Your task to perform on an android device: choose inbox layout in the gmail app Image 0: 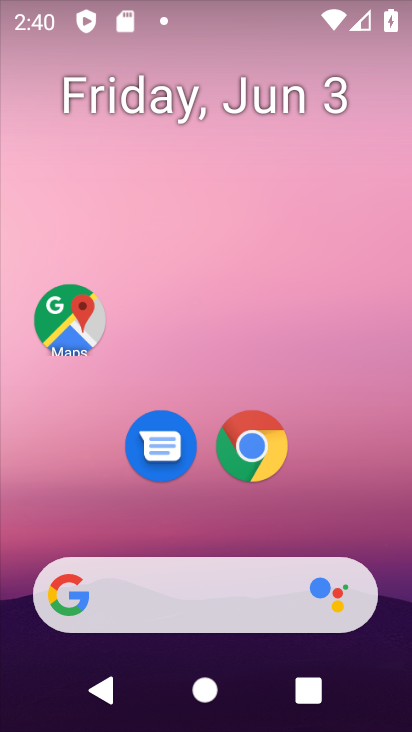
Step 0: drag from (358, 531) to (341, 90)
Your task to perform on an android device: choose inbox layout in the gmail app Image 1: 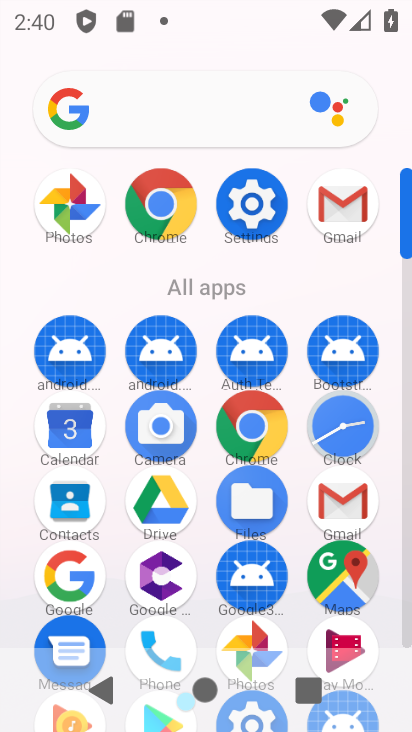
Step 1: click (337, 212)
Your task to perform on an android device: choose inbox layout in the gmail app Image 2: 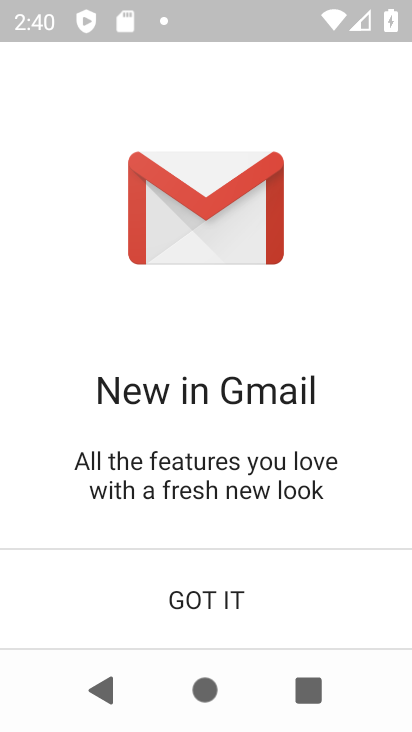
Step 2: click (306, 555)
Your task to perform on an android device: choose inbox layout in the gmail app Image 3: 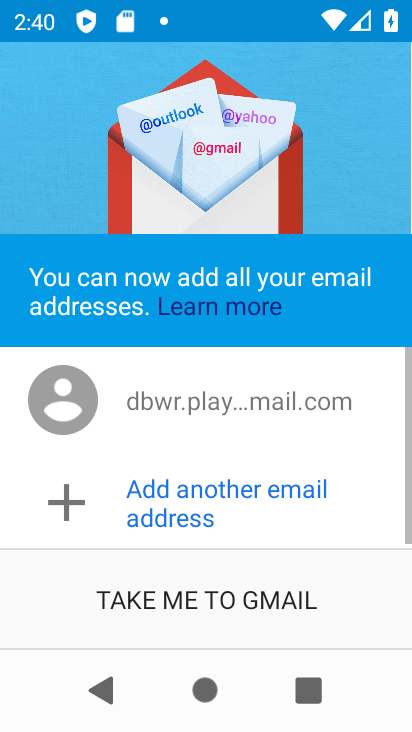
Step 3: task complete